Your task to perform on an android device: Show me popular videos on Youtube Image 0: 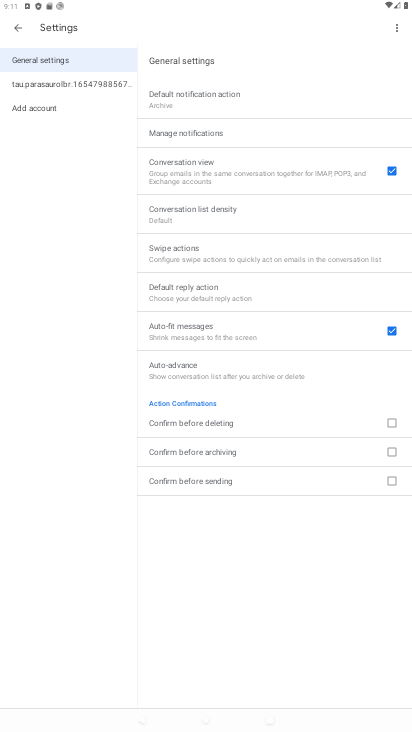
Step 0: press home button
Your task to perform on an android device: Show me popular videos on Youtube Image 1: 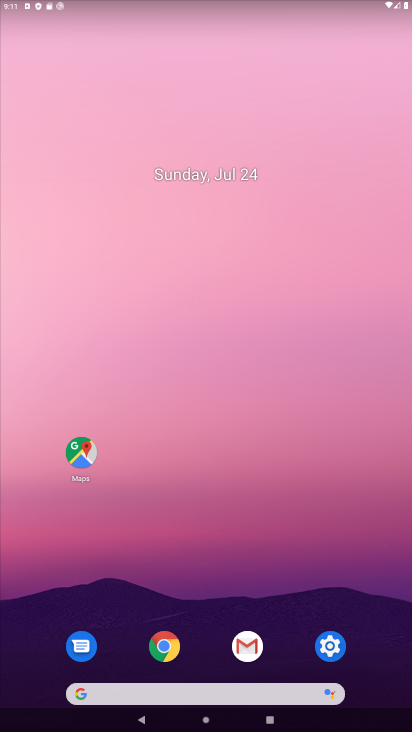
Step 1: drag from (296, 710) to (206, 165)
Your task to perform on an android device: Show me popular videos on Youtube Image 2: 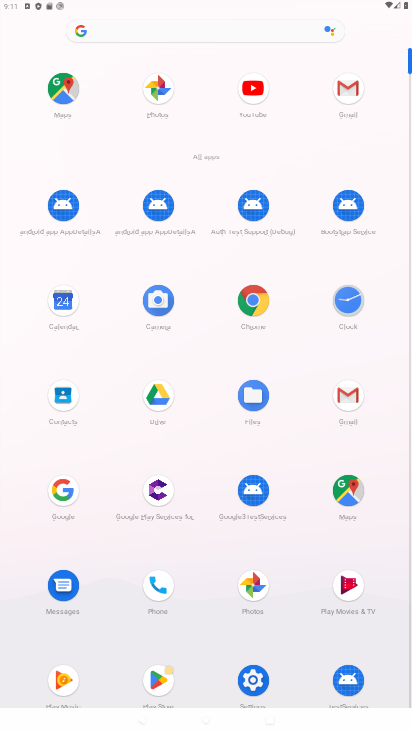
Step 2: click (257, 90)
Your task to perform on an android device: Show me popular videos on Youtube Image 3: 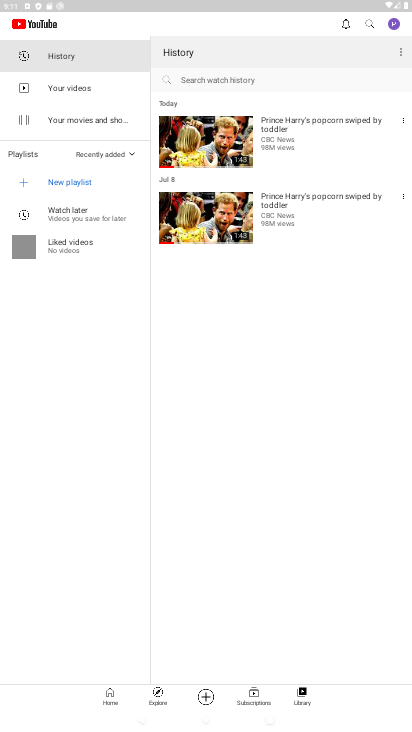
Step 3: click (68, 89)
Your task to perform on an android device: Show me popular videos on Youtube Image 4: 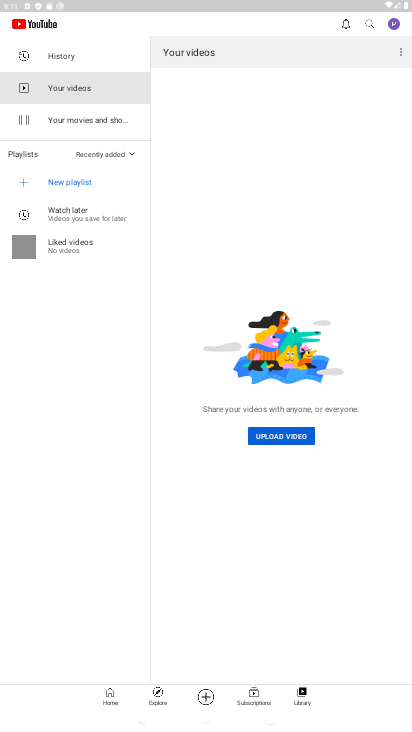
Step 4: click (376, 17)
Your task to perform on an android device: Show me popular videos on Youtube Image 5: 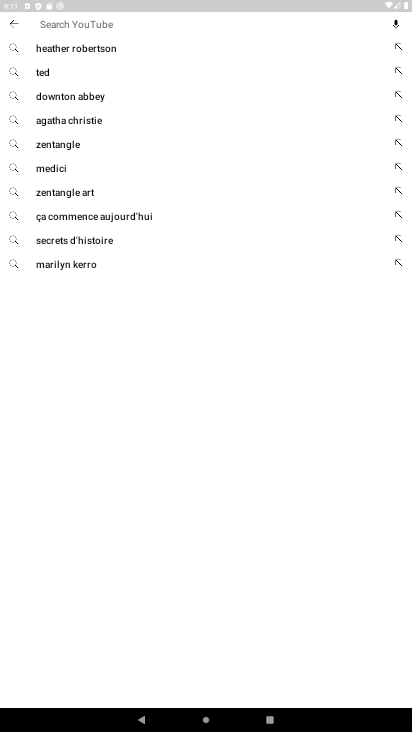
Step 5: click (366, 718)
Your task to perform on an android device: Show me popular videos on Youtube Image 6: 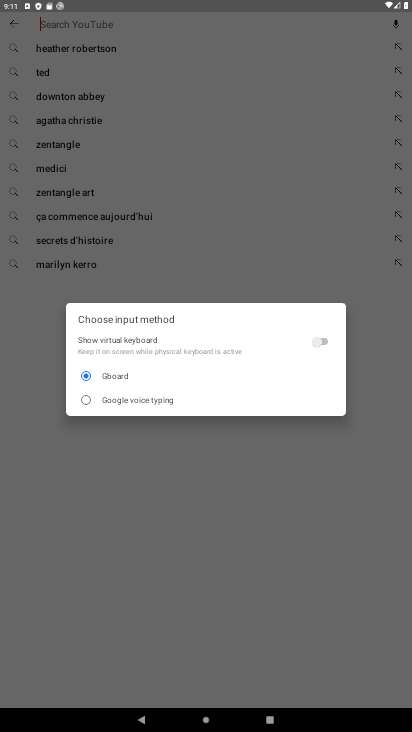
Step 6: click (320, 345)
Your task to perform on an android device: Show me popular videos on Youtube Image 7: 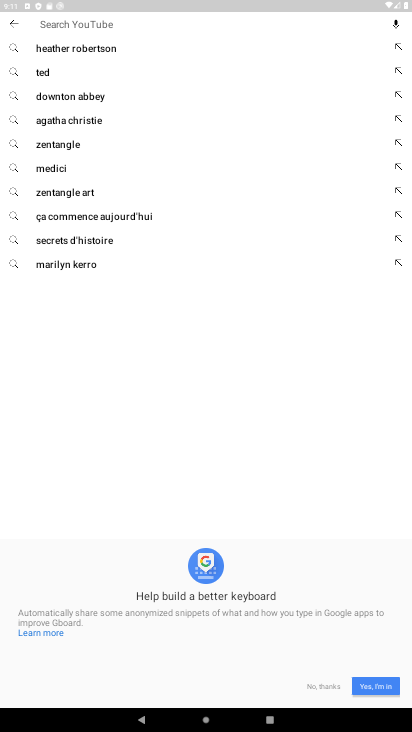
Step 7: click (322, 681)
Your task to perform on an android device: Show me popular videos on Youtube Image 8: 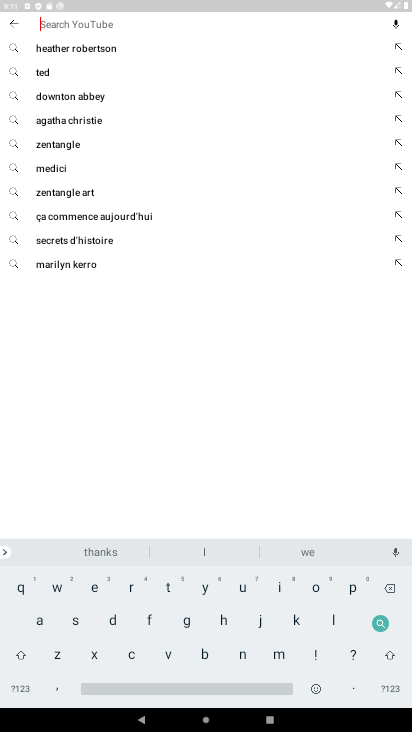
Step 8: click (356, 595)
Your task to perform on an android device: Show me popular videos on Youtube Image 9: 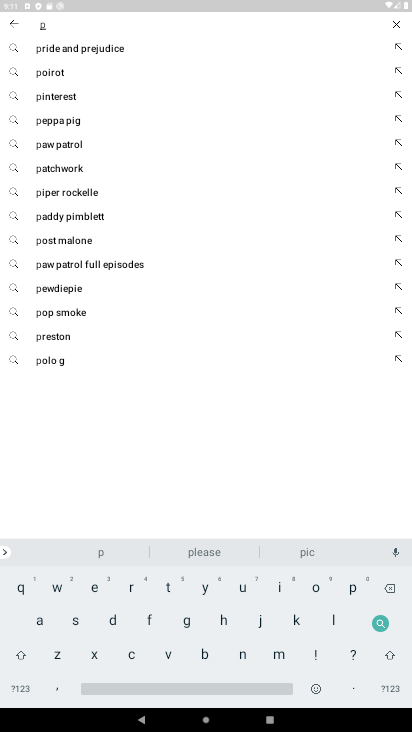
Step 9: click (323, 590)
Your task to perform on an android device: Show me popular videos on Youtube Image 10: 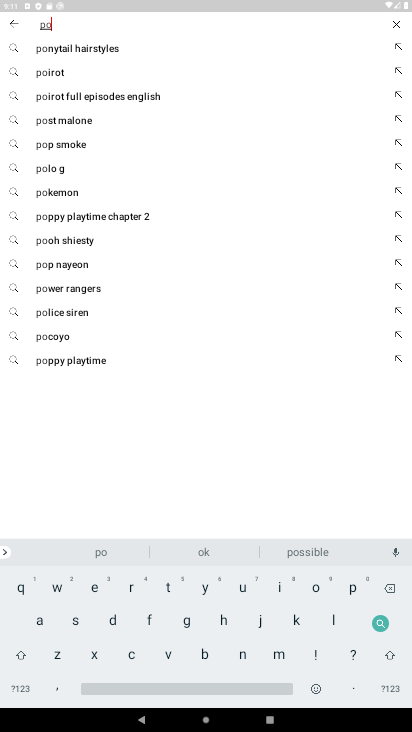
Step 10: click (353, 594)
Your task to perform on an android device: Show me popular videos on Youtube Image 11: 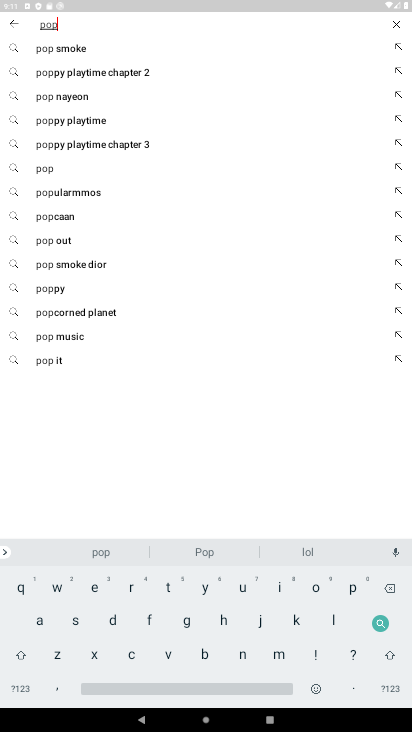
Step 11: click (249, 587)
Your task to perform on an android device: Show me popular videos on Youtube Image 12: 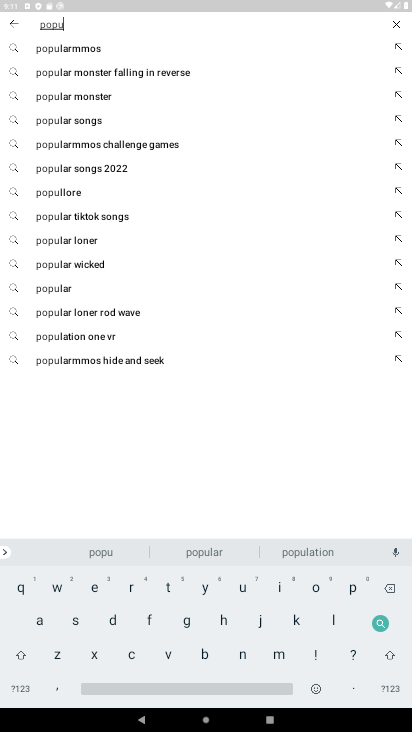
Step 12: click (221, 554)
Your task to perform on an android device: Show me popular videos on Youtube Image 13: 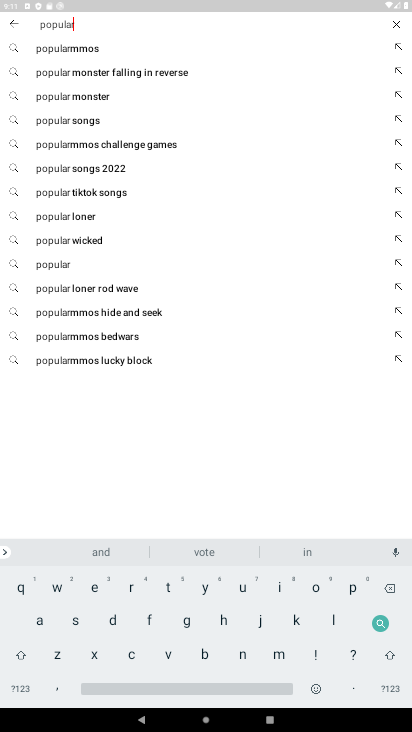
Step 13: click (169, 656)
Your task to perform on an android device: Show me popular videos on Youtube Image 14: 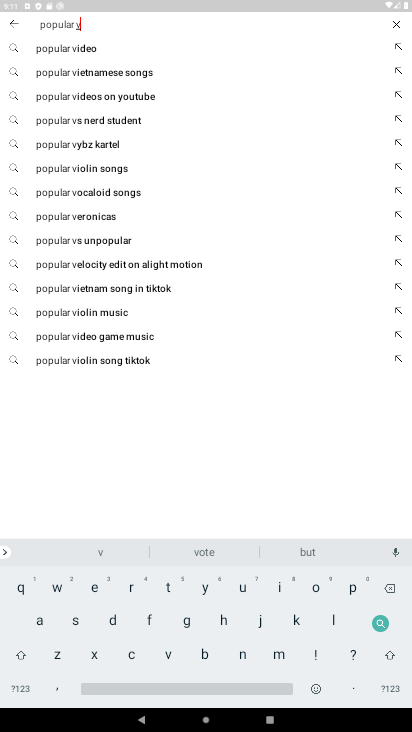
Step 14: click (275, 585)
Your task to perform on an android device: Show me popular videos on Youtube Image 15: 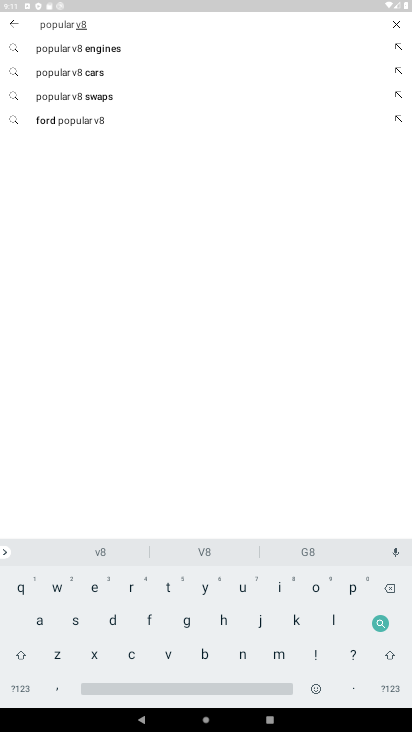
Step 15: click (383, 587)
Your task to perform on an android device: Show me popular videos on Youtube Image 16: 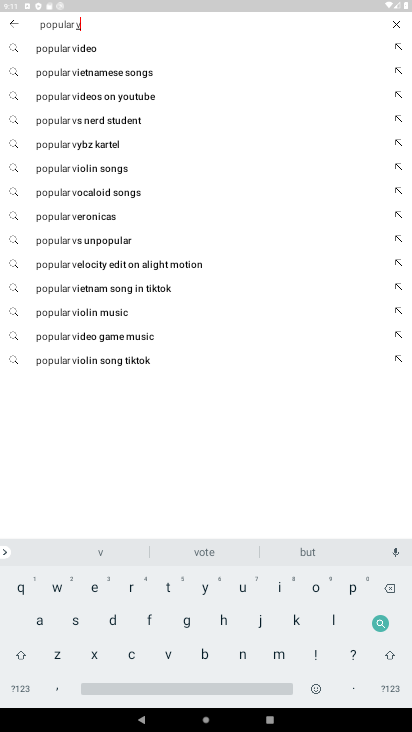
Step 16: click (280, 588)
Your task to perform on an android device: Show me popular videos on Youtube Image 17: 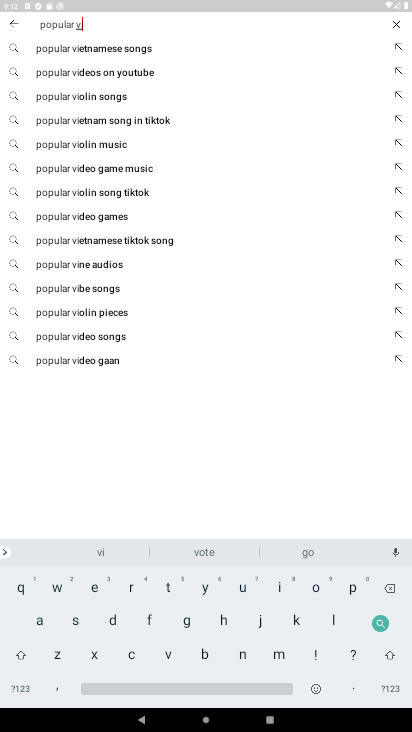
Step 17: click (109, 618)
Your task to perform on an android device: Show me popular videos on Youtube Image 18: 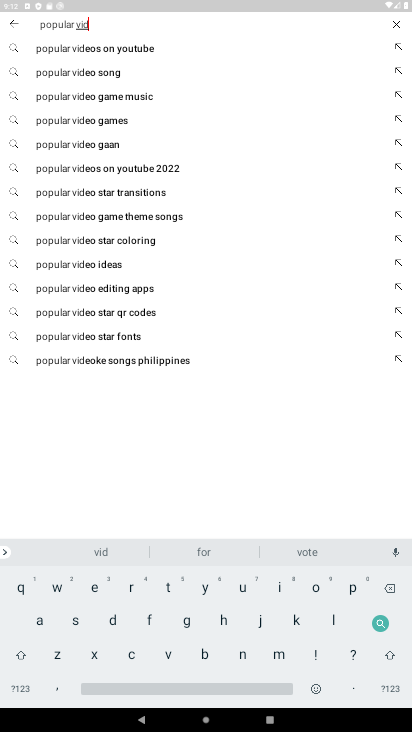
Step 18: click (121, 46)
Your task to perform on an android device: Show me popular videos on Youtube Image 19: 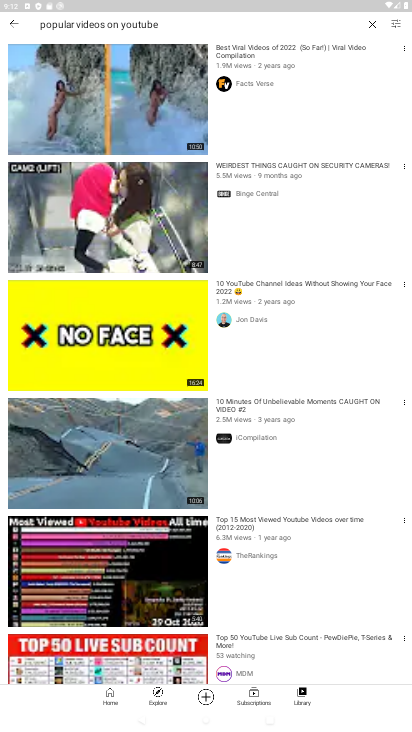
Step 19: task complete